Your task to perform on an android device: show emergency info Image 0: 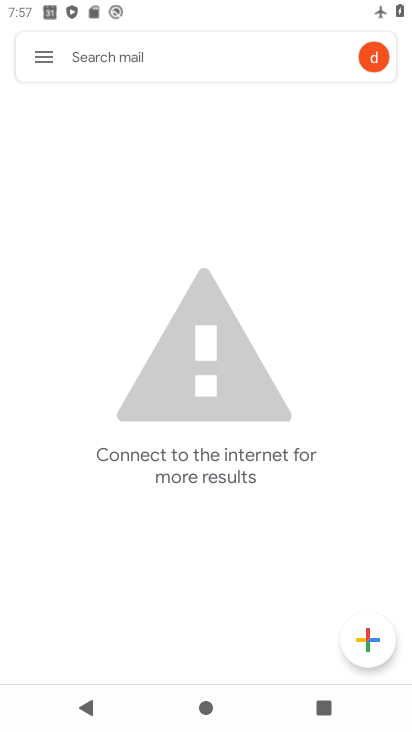
Step 0: press home button
Your task to perform on an android device: show emergency info Image 1: 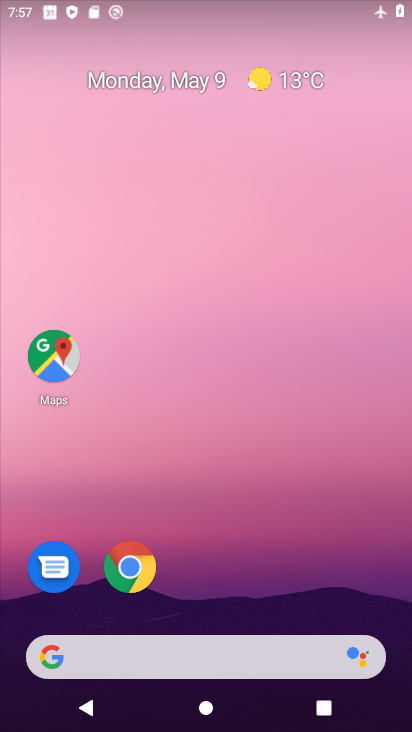
Step 1: drag from (280, 518) to (313, 102)
Your task to perform on an android device: show emergency info Image 2: 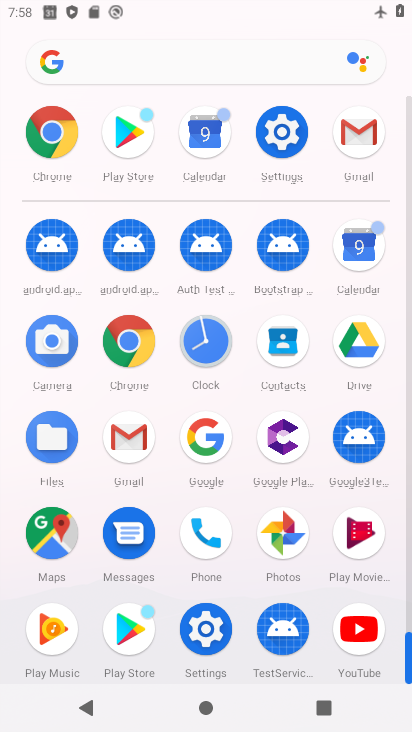
Step 2: click (275, 124)
Your task to perform on an android device: show emergency info Image 3: 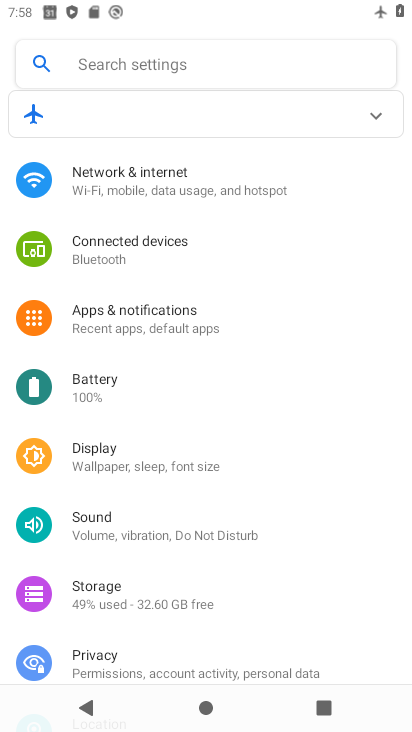
Step 3: drag from (226, 568) to (253, 160)
Your task to perform on an android device: show emergency info Image 4: 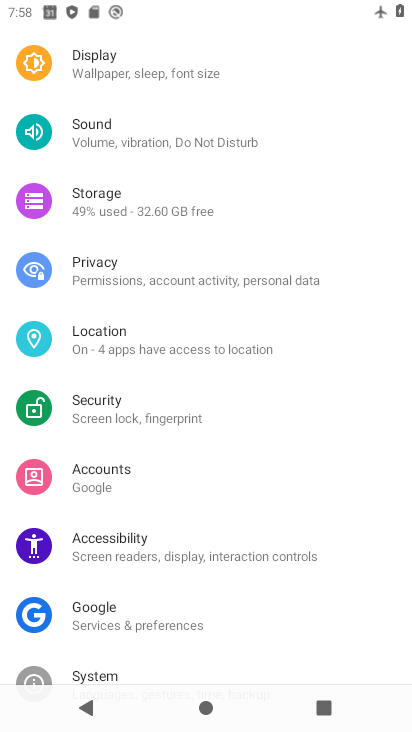
Step 4: drag from (207, 621) to (205, 302)
Your task to perform on an android device: show emergency info Image 5: 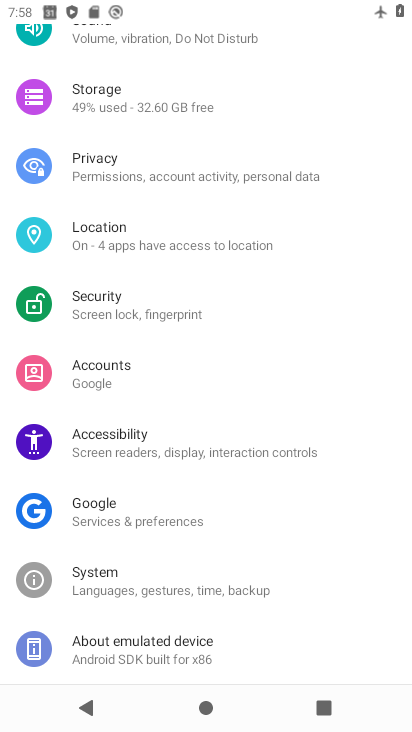
Step 5: click (158, 657)
Your task to perform on an android device: show emergency info Image 6: 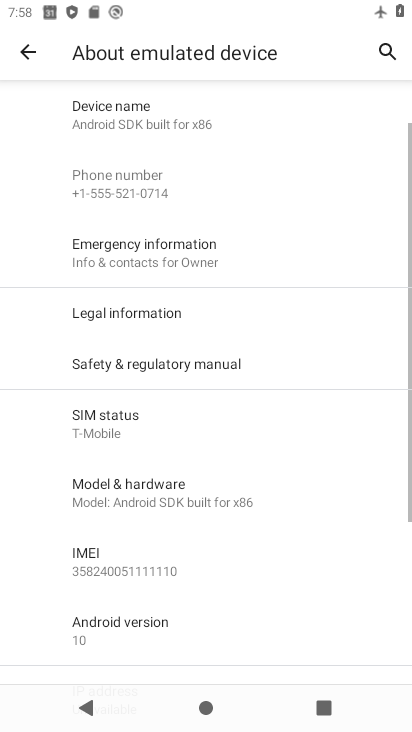
Step 6: click (187, 251)
Your task to perform on an android device: show emergency info Image 7: 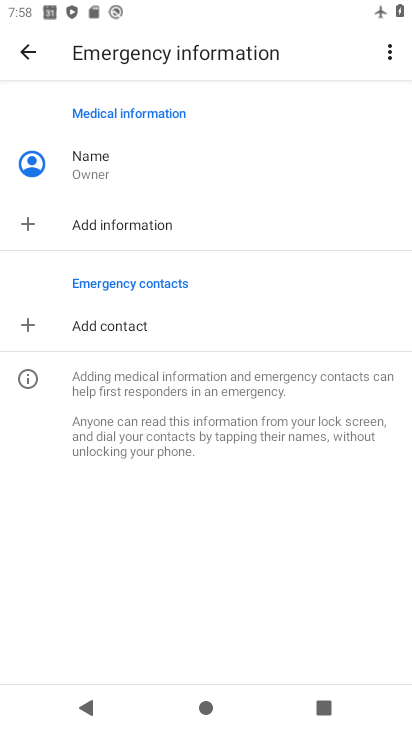
Step 7: task complete